Your task to perform on an android device: Show me the alarms in the clock app Image 0: 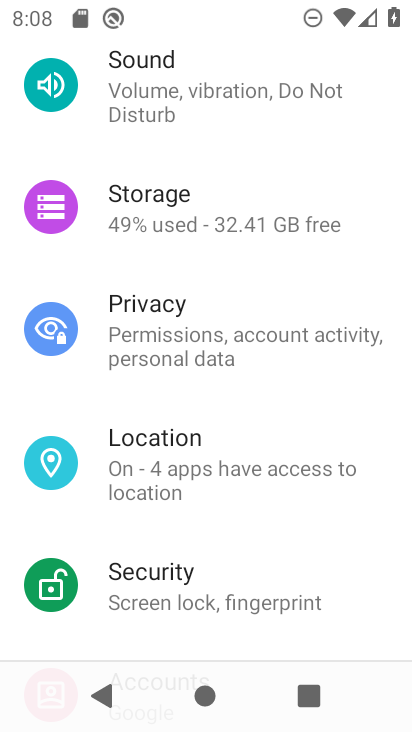
Step 0: press home button
Your task to perform on an android device: Show me the alarms in the clock app Image 1: 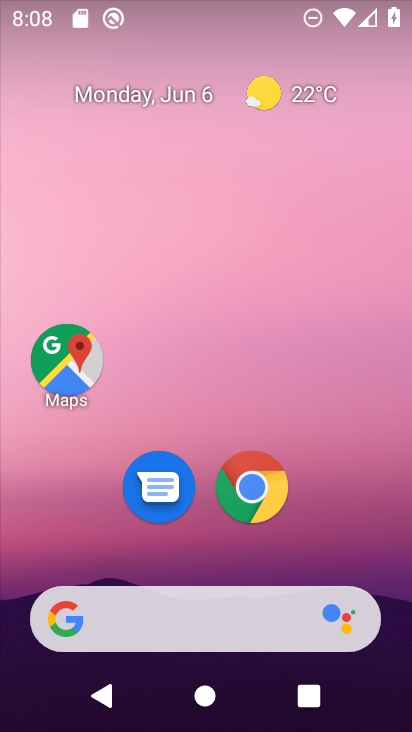
Step 1: drag from (397, 636) to (335, 77)
Your task to perform on an android device: Show me the alarms in the clock app Image 2: 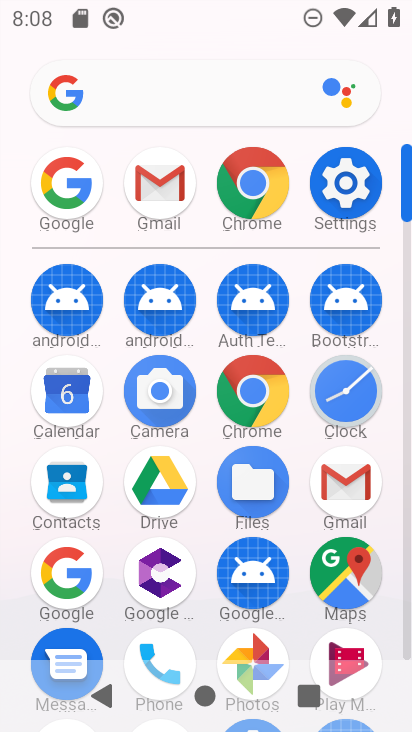
Step 2: click (344, 389)
Your task to perform on an android device: Show me the alarms in the clock app Image 3: 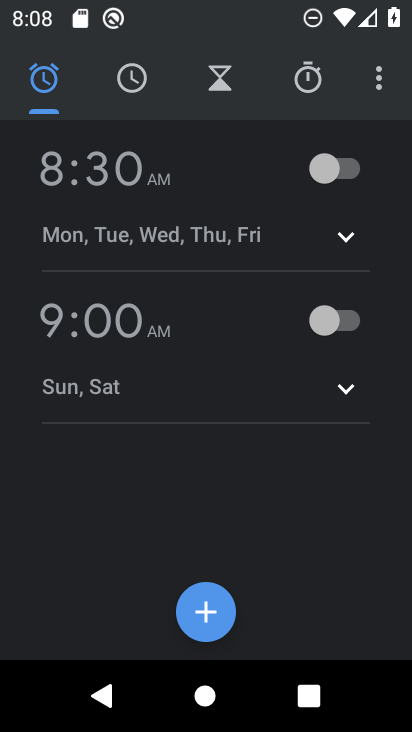
Step 3: task complete